Your task to perform on an android device: turn on location history Image 0: 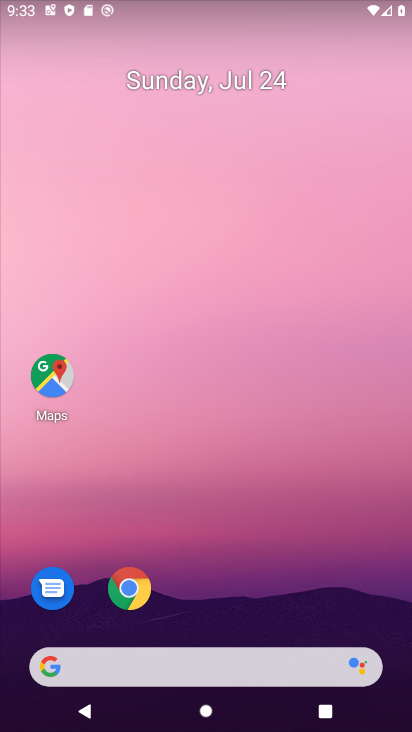
Step 0: click (50, 380)
Your task to perform on an android device: turn on location history Image 1: 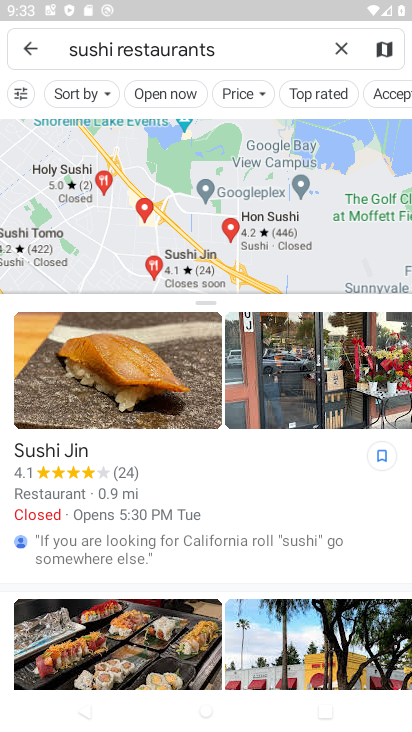
Step 1: click (348, 44)
Your task to perform on an android device: turn on location history Image 2: 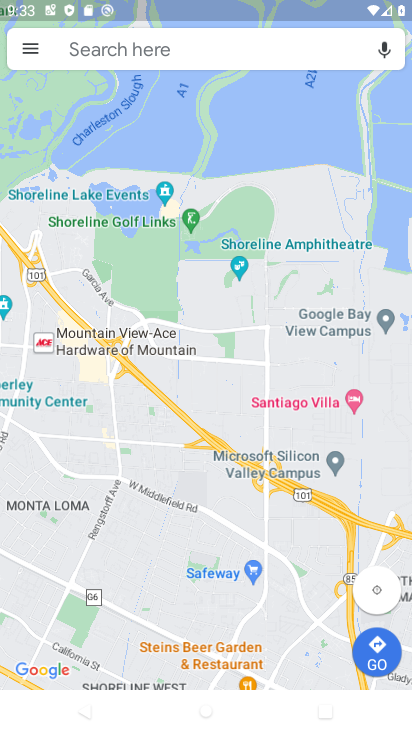
Step 2: click (25, 50)
Your task to perform on an android device: turn on location history Image 3: 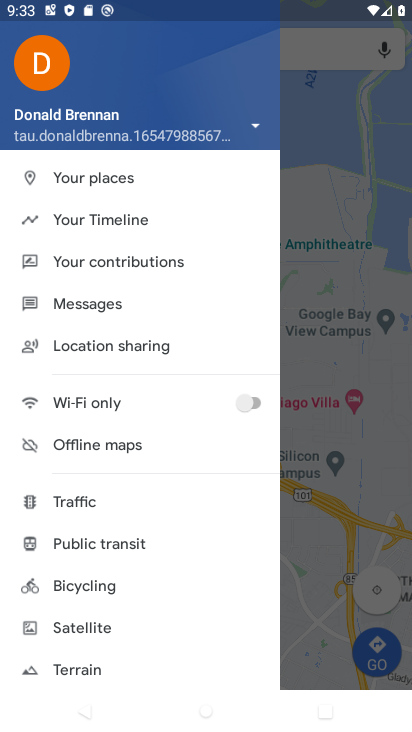
Step 3: click (90, 223)
Your task to perform on an android device: turn on location history Image 4: 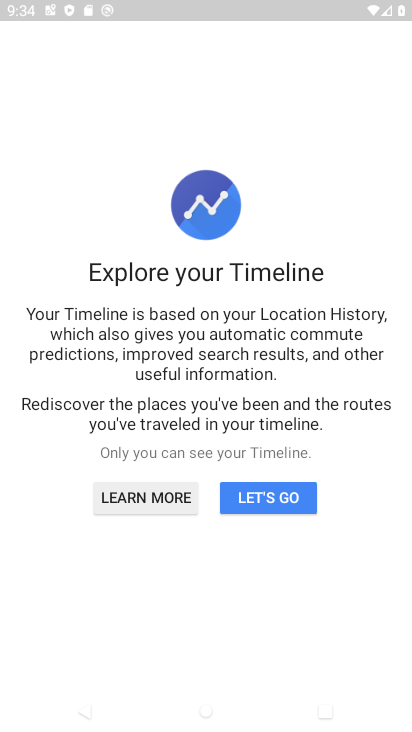
Step 4: drag from (245, 528) to (257, 365)
Your task to perform on an android device: turn on location history Image 5: 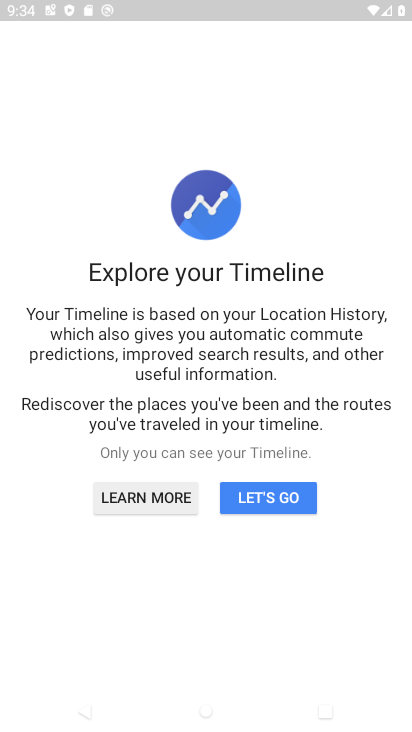
Step 5: click (265, 499)
Your task to perform on an android device: turn on location history Image 6: 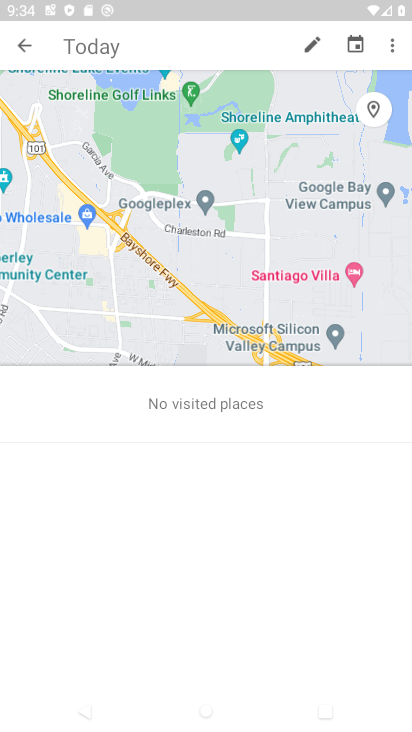
Step 6: click (393, 48)
Your task to perform on an android device: turn on location history Image 7: 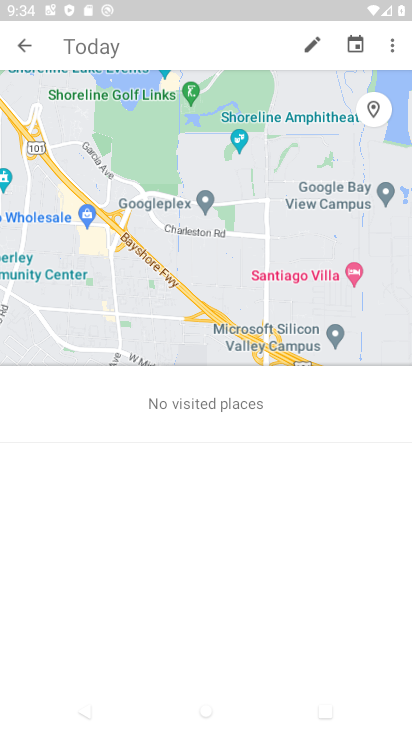
Step 7: click (390, 49)
Your task to perform on an android device: turn on location history Image 8: 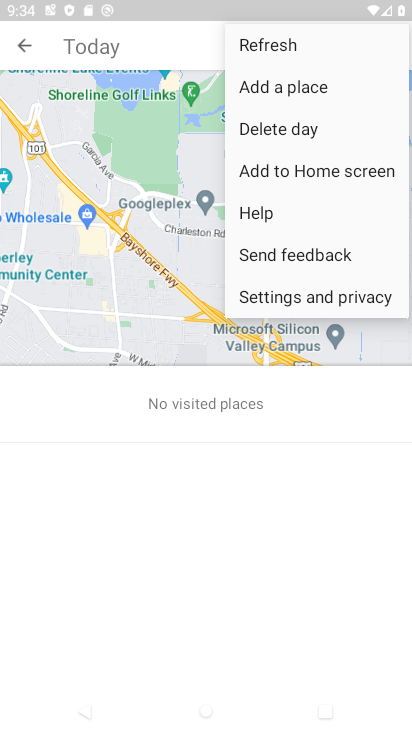
Step 8: click (281, 303)
Your task to perform on an android device: turn on location history Image 9: 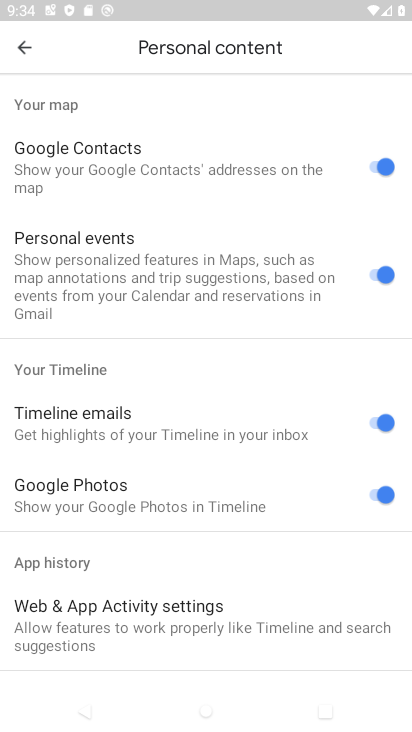
Step 9: drag from (181, 428) to (175, 83)
Your task to perform on an android device: turn on location history Image 10: 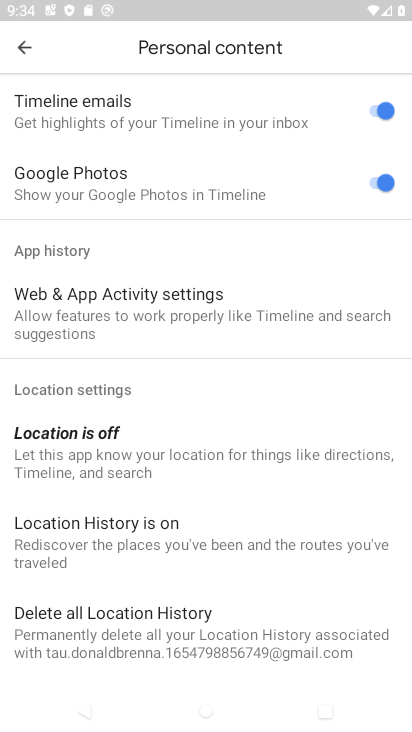
Step 10: click (130, 541)
Your task to perform on an android device: turn on location history Image 11: 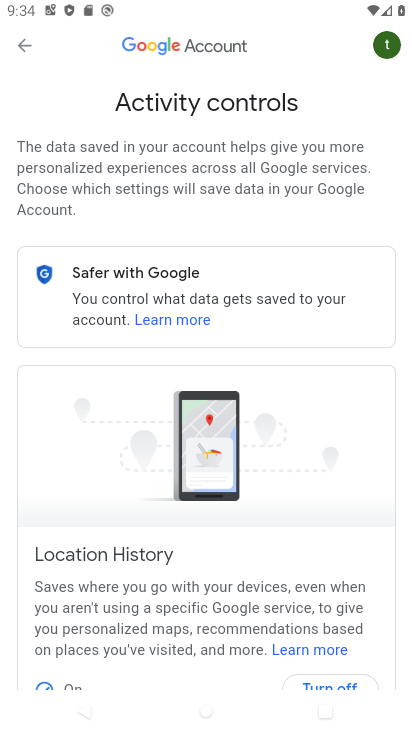
Step 11: task complete